Your task to perform on an android device: Go to accessibility settings Image 0: 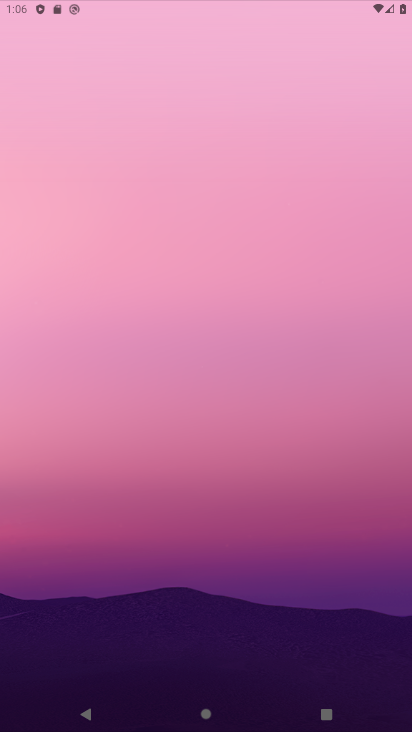
Step 0: drag from (192, 619) to (178, 165)
Your task to perform on an android device: Go to accessibility settings Image 1: 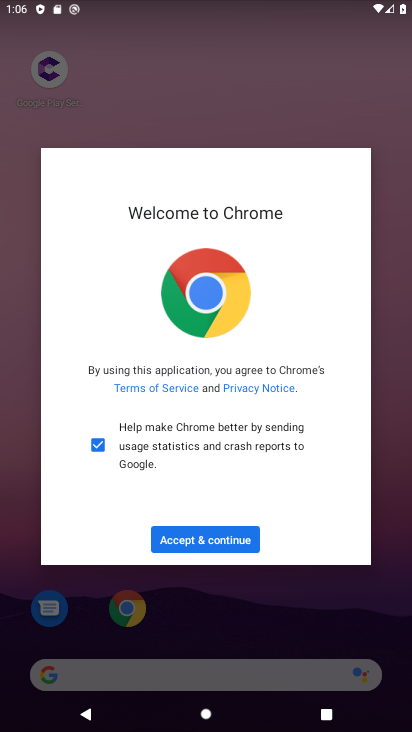
Step 1: click (204, 543)
Your task to perform on an android device: Go to accessibility settings Image 2: 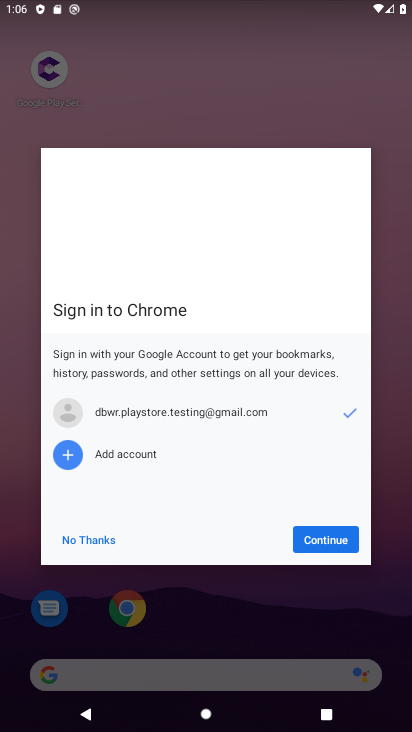
Step 2: click (329, 539)
Your task to perform on an android device: Go to accessibility settings Image 3: 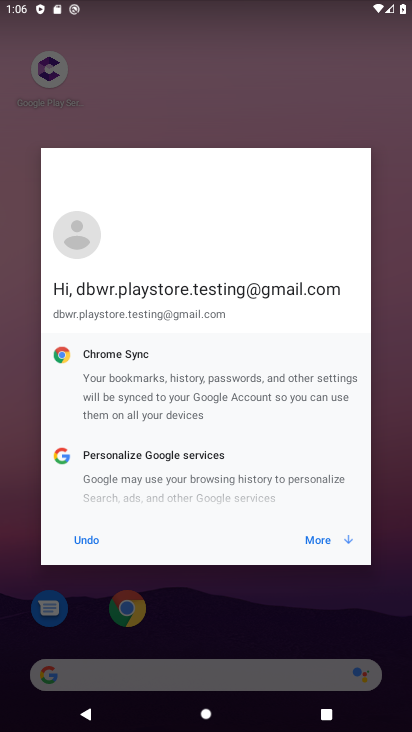
Step 3: click (329, 538)
Your task to perform on an android device: Go to accessibility settings Image 4: 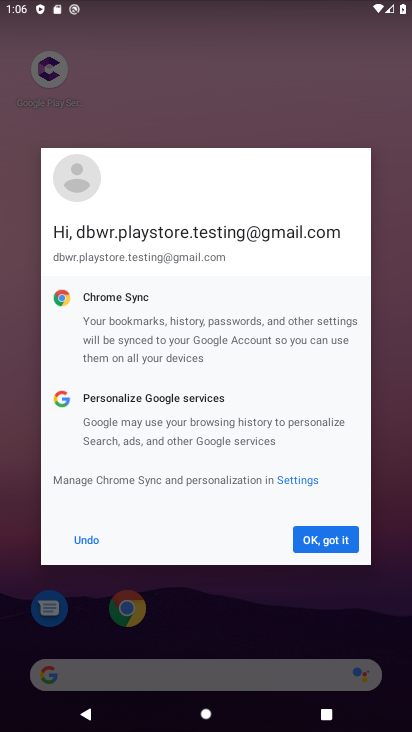
Step 4: click (329, 538)
Your task to perform on an android device: Go to accessibility settings Image 5: 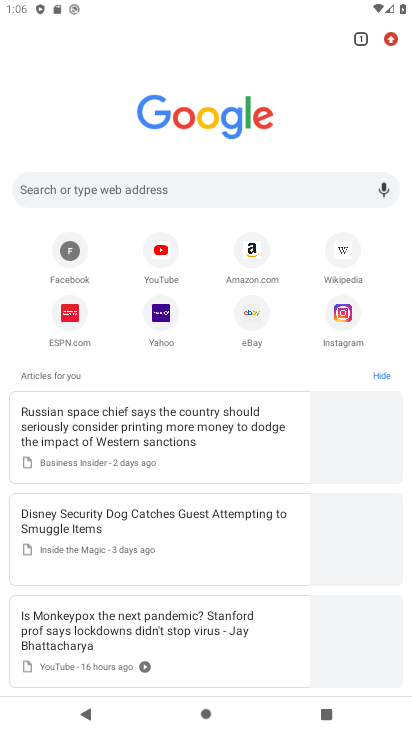
Step 5: press home button
Your task to perform on an android device: Go to accessibility settings Image 6: 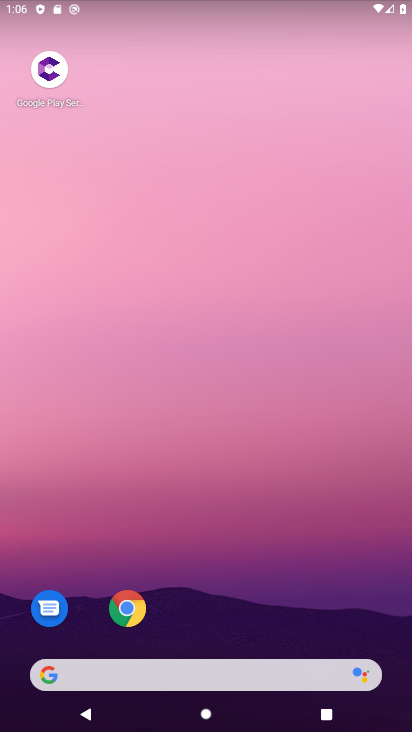
Step 6: drag from (204, 614) to (173, 271)
Your task to perform on an android device: Go to accessibility settings Image 7: 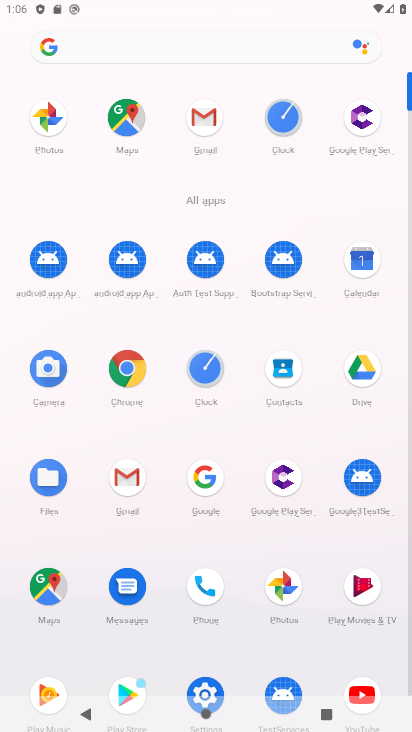
Step 7: drag from (218, 648) to (254, 416)
Your task to perform on an android device: Go to accessibility settings Image 8: 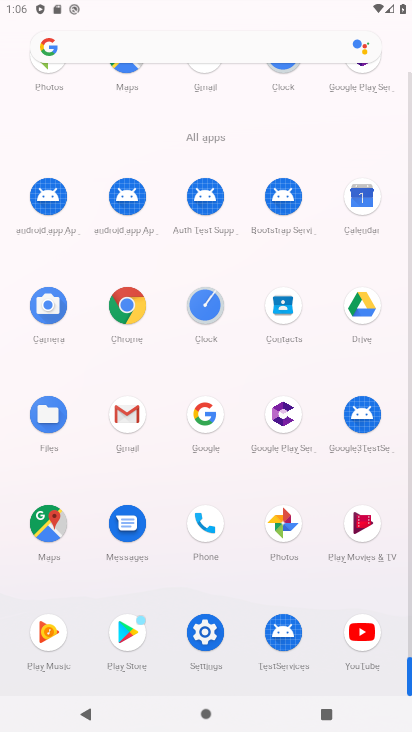
Step 8: click (208, 633)
Your task to perform on an android device: Go to accessibility settings Image 9: 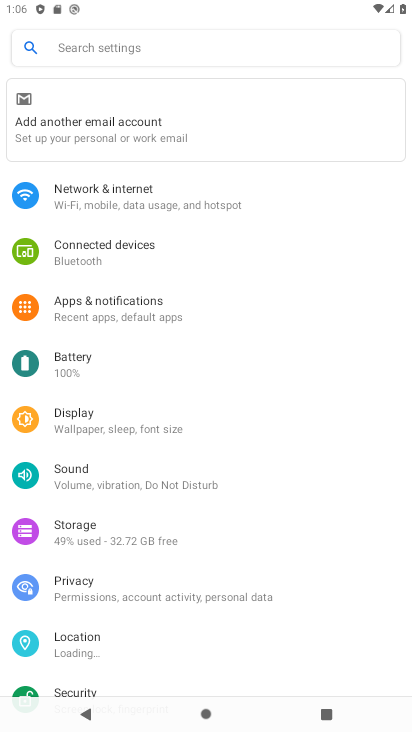
Step 9: drag from (112, 637) to (118, 364)
Your task to perform on an android device: Go to accessibility settings Image 10: 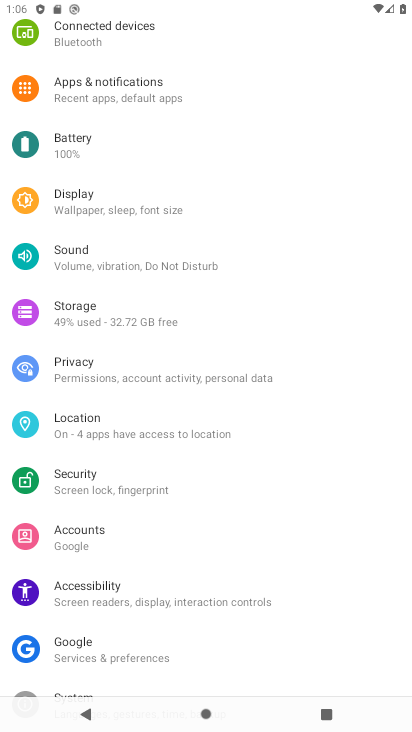
Step 10: click (84, 590)
Your task to perform on an android device: Go to accessibility settings Image 11: 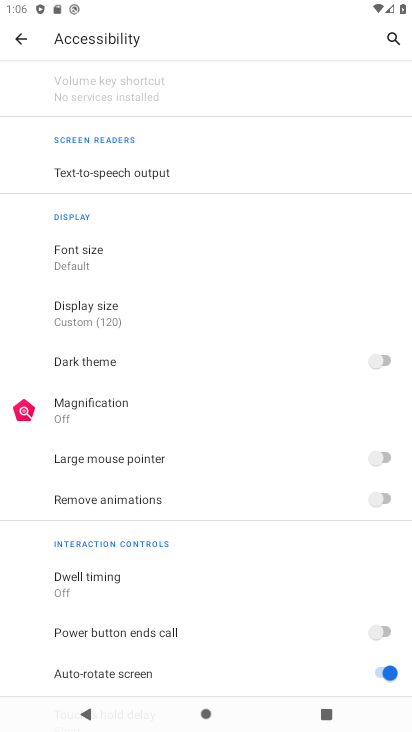
Step 11: task complete